Your task to perform on an android device: turn off translation in the chrome app Image 0: 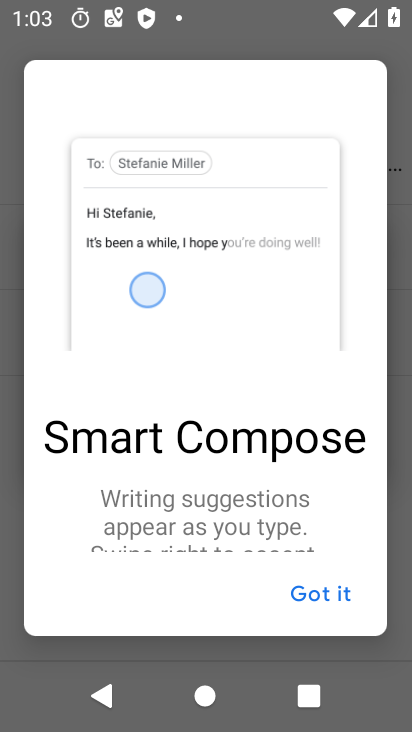
Step 0: press back button
Your task to perform on an android device: turn off translation in the chrome app Image 1: 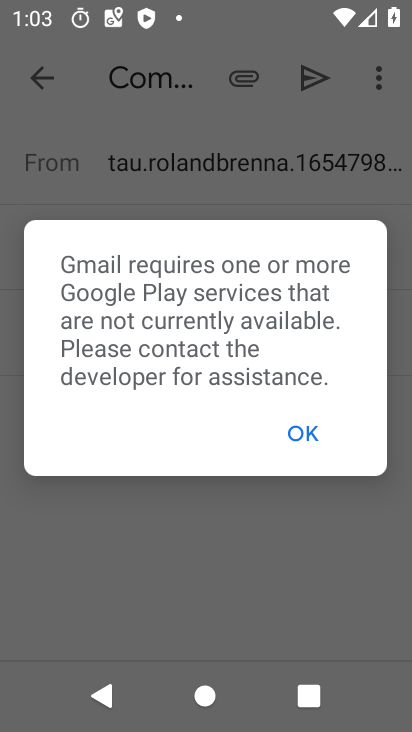
Step 1: press home button
Your task to perform on an android device: turn off translation in the chrome app Image 2: 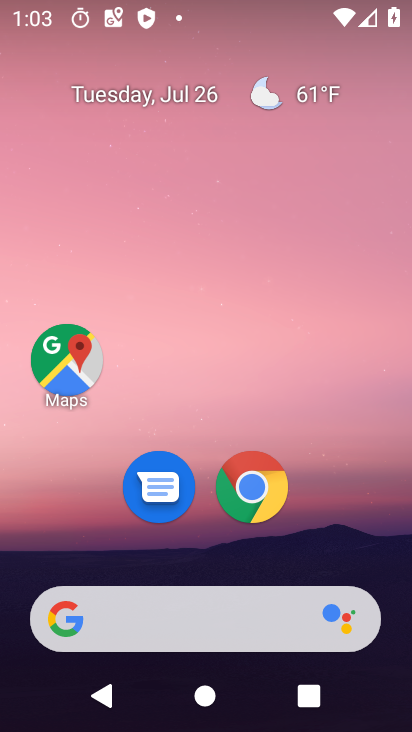
Step 2: click (258, 474)
Your task to perform on an android device: turn off translation in the chrome app Image 3: 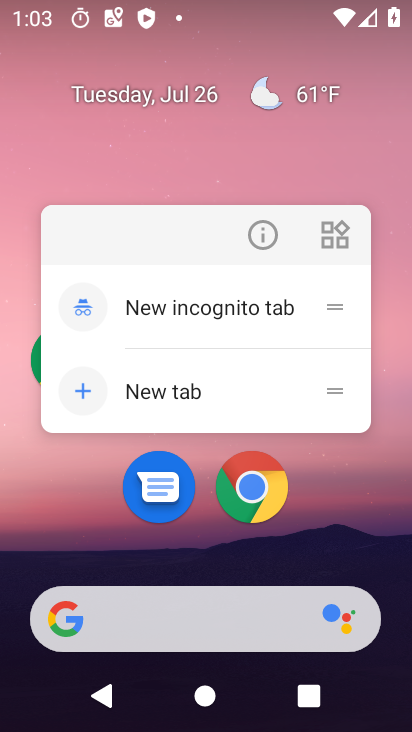
Step 3: click (250, 492)
Your task to perform on an android device: turn off translation in the chrome app Image 4: 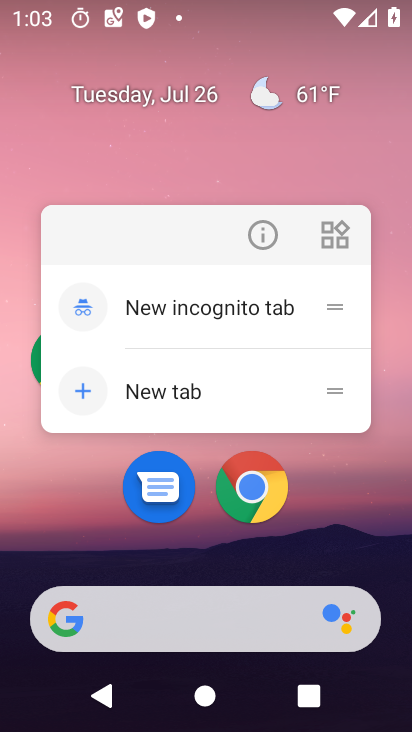
Step 4: click (253, 480)
Your task to perform on an android device: turn off translation in the chrome app Image 5: 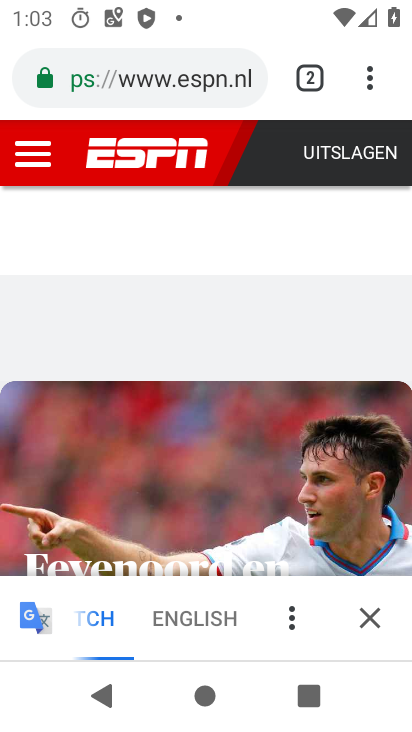
Step 5: drag from (370, 79) to (103, 542)
Your task to perform on an android device: turn off translation in the chrome app Image 6: 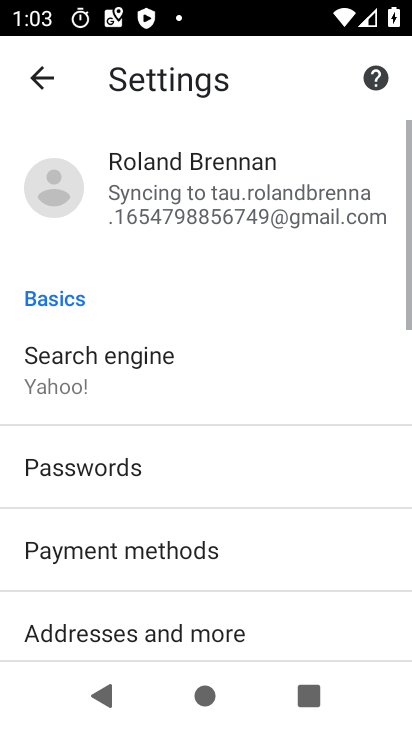
Step 6: drag from (145, 544) to (264, 0)
Your task to perform on an android device: turn off translation in the chrome app Image 7: 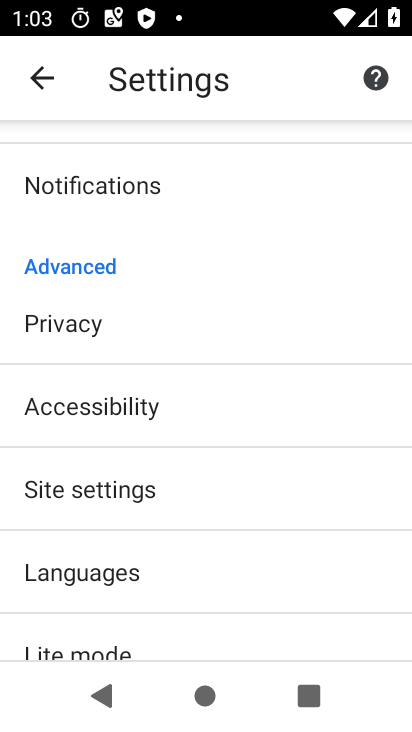
Step 7: click (50, 562)
Your task to perform on an android device: turn off translation in the chrome app Image 8: 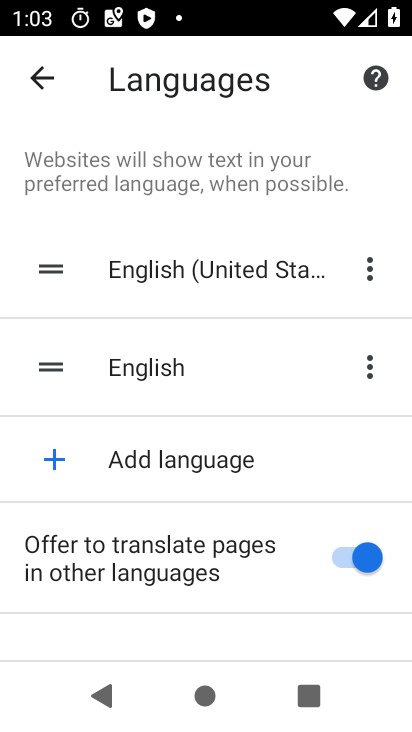
Step 8: click (376, 547)
Your task to perform on an android device: turn off translation in the chrome app Image 9: 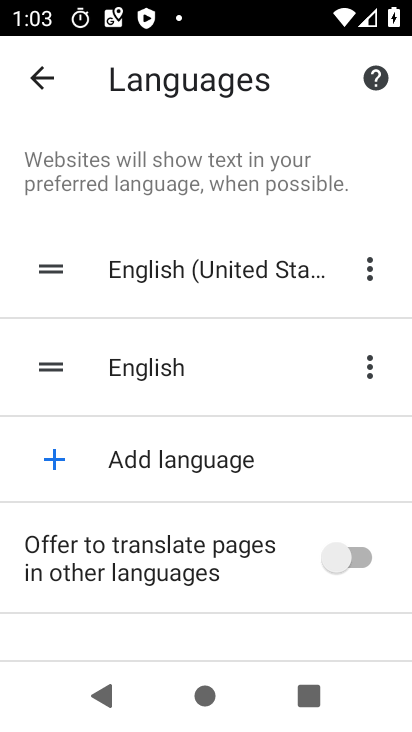
Step 9: task complete